Your task to perform on an android device: What's on my calendar today? Image 0: 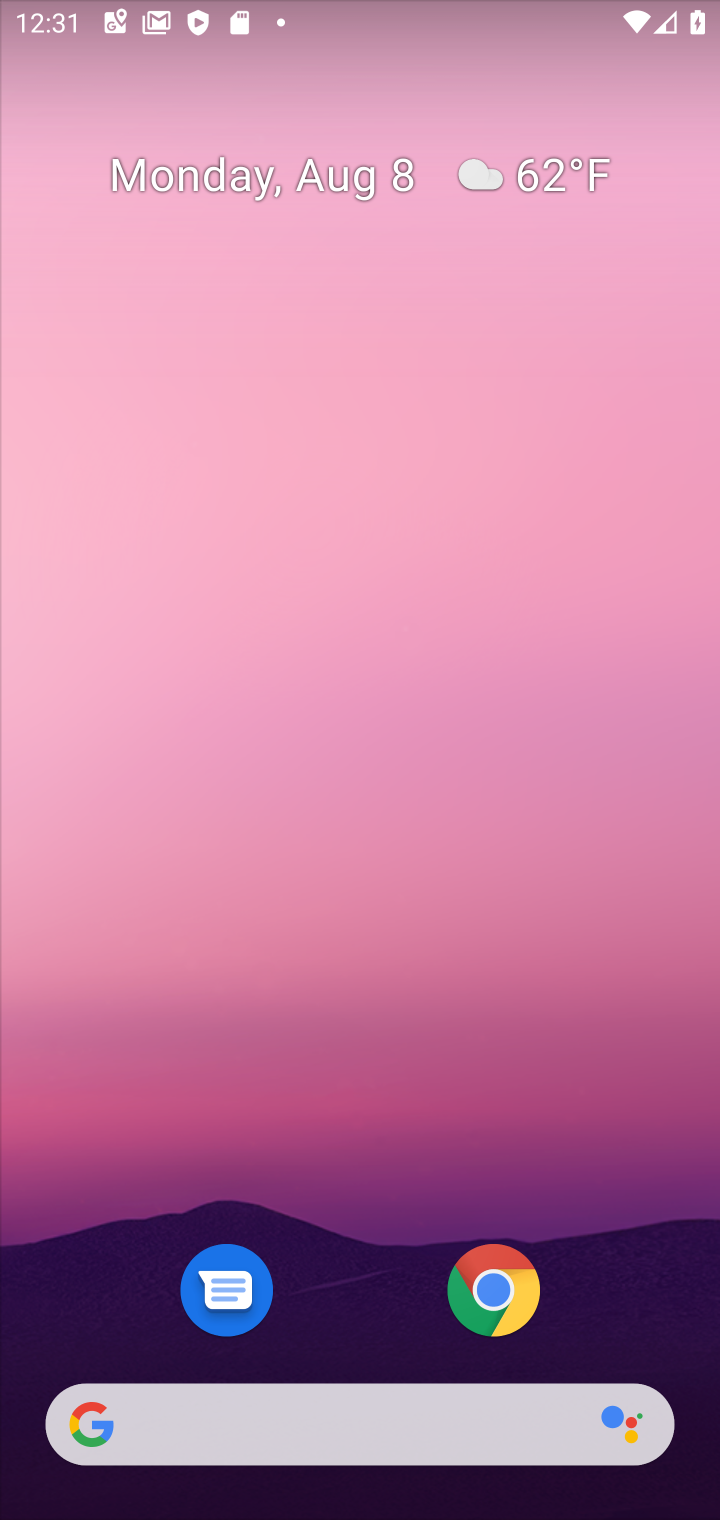
Step 0: press home button
Your task to perform on an android device: What's on my calendar today? Image 1: 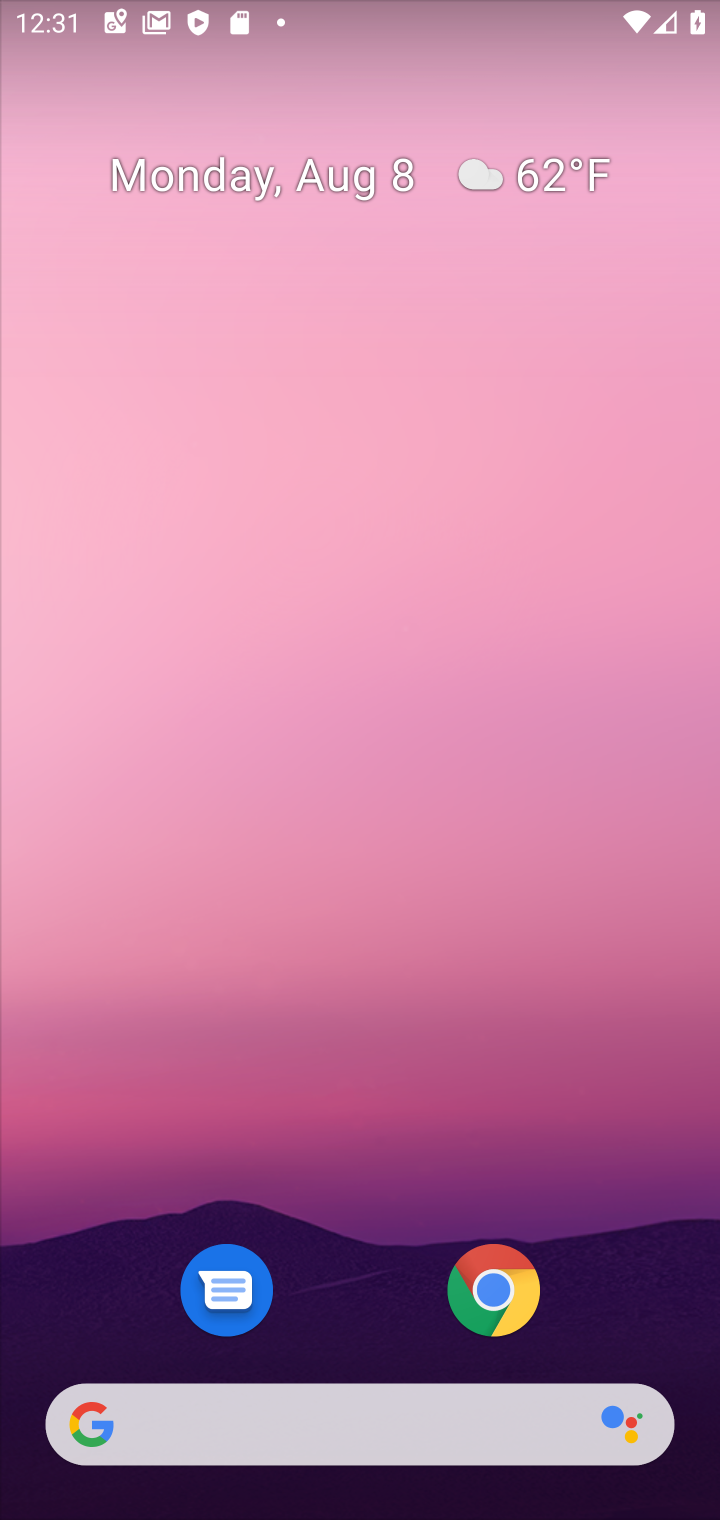
Step 1: click (350, 83)
Your task to perform on an android device: What's on my calendar today? Image 2: 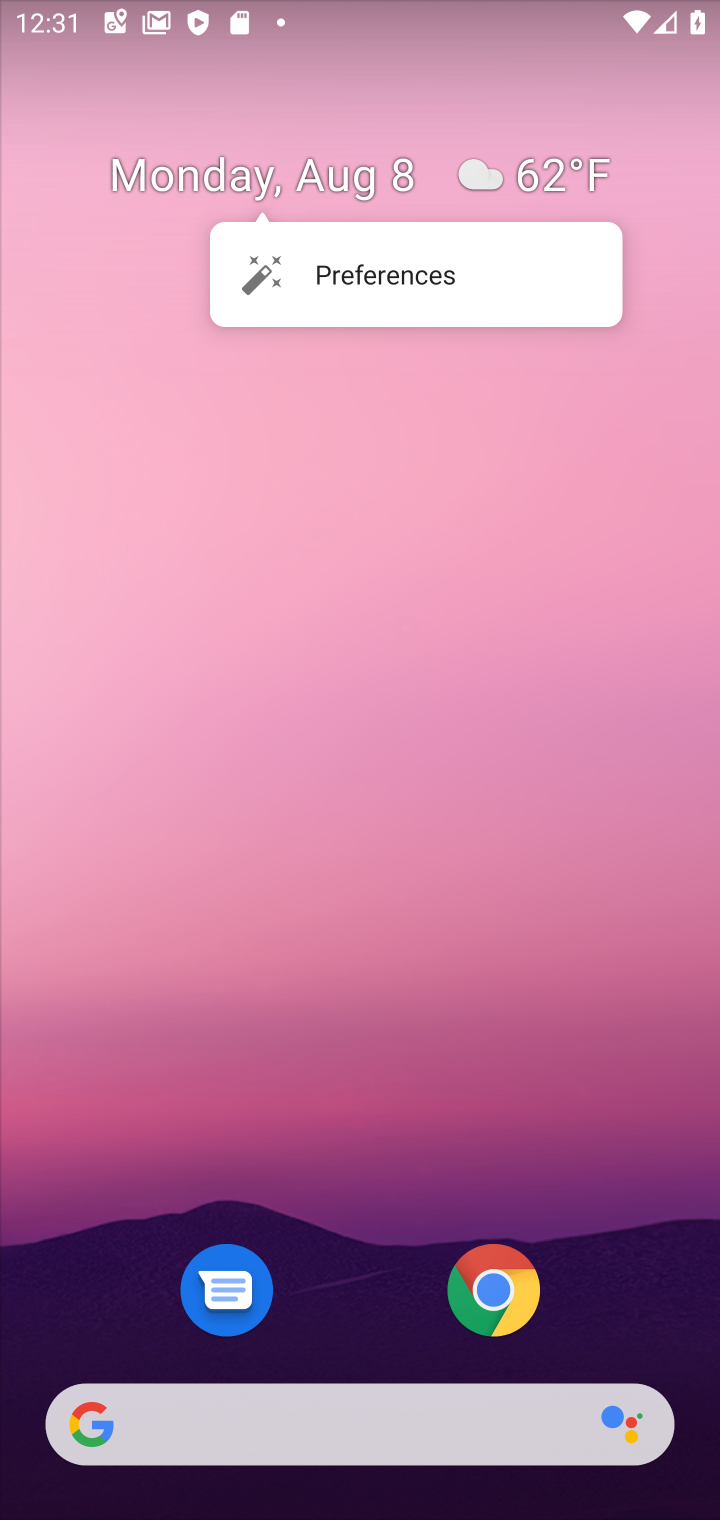
Step 2: click (310, 1262)
Your task to perform on an android device: What's on my calendar today? Image 3: 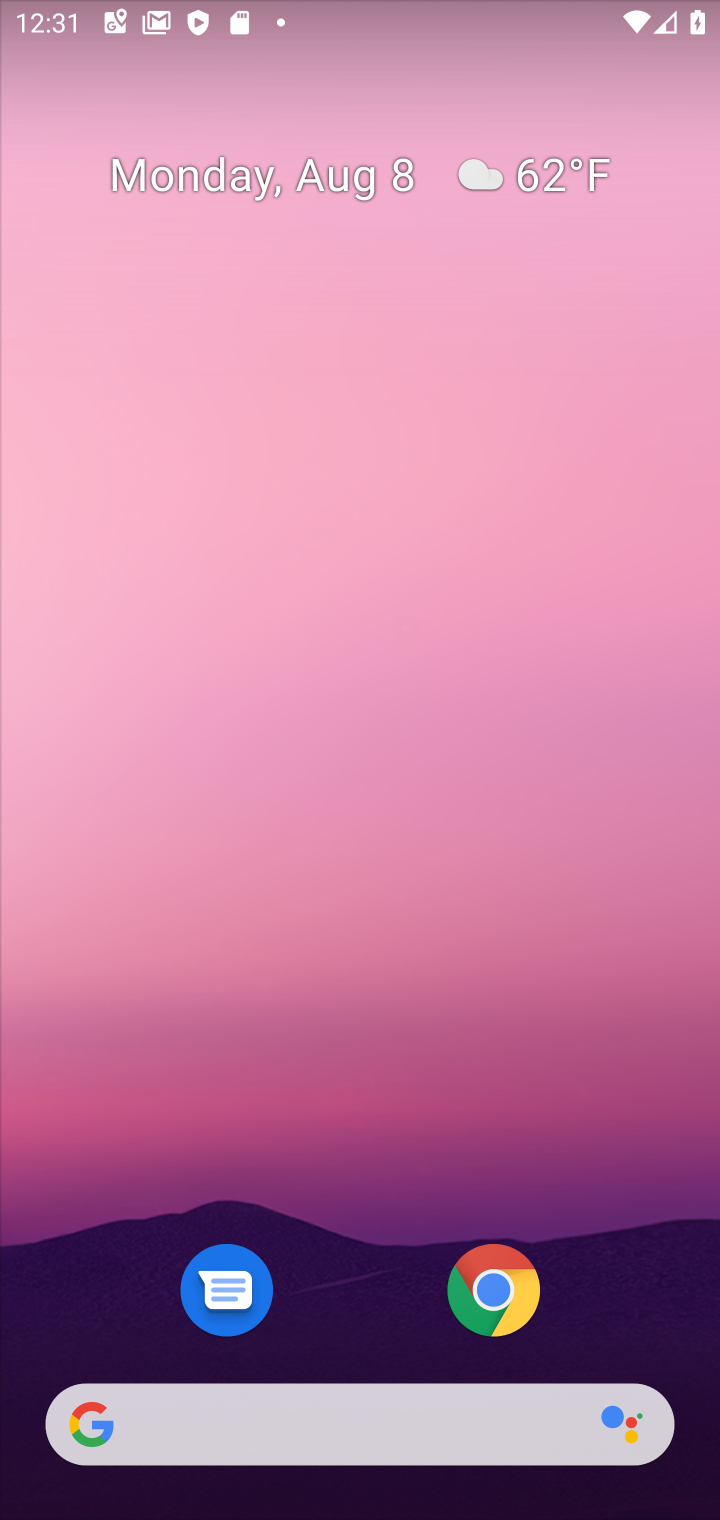
Step 3: drag from (351, 1361) to (356, 237)
Your task to perform on an android device: What's on my calendar today? Image 4: 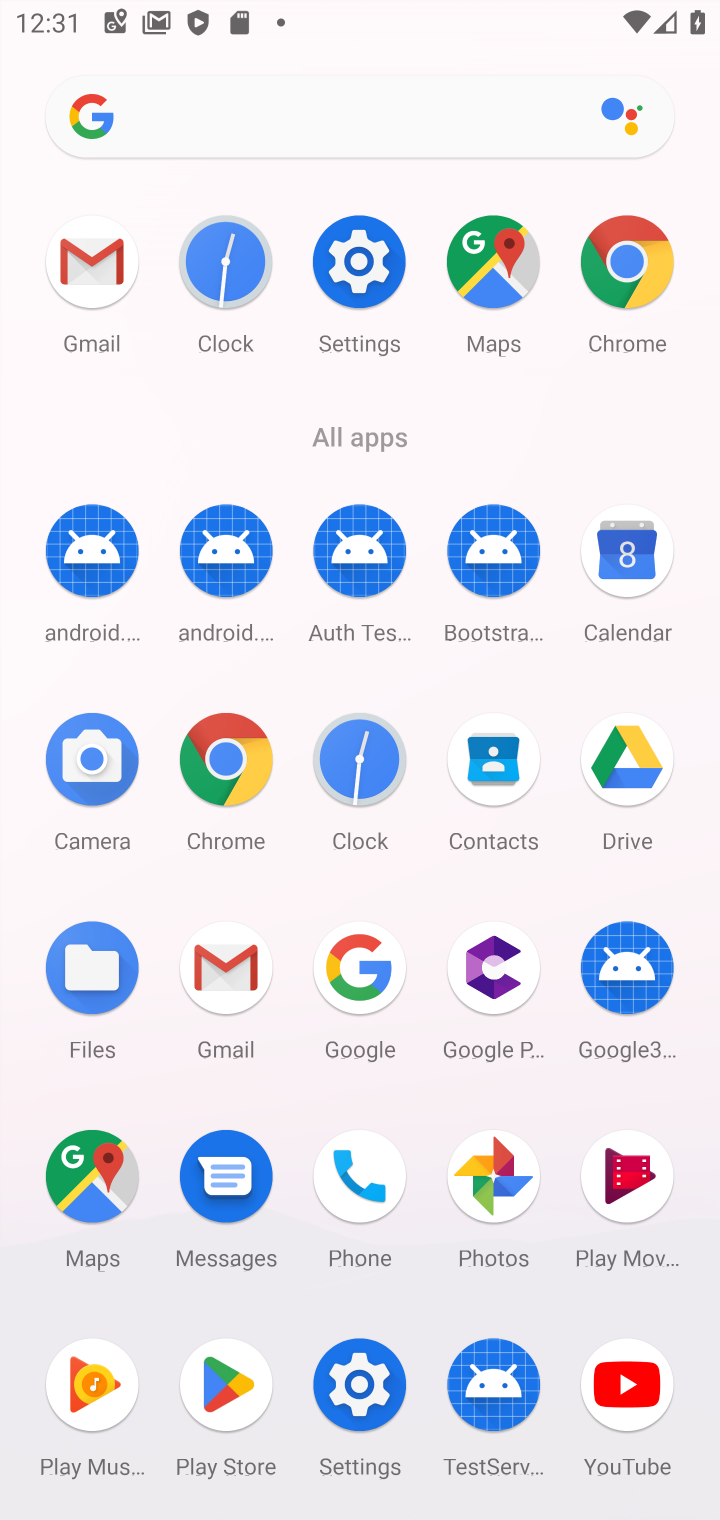
Step 4: click (648, 553)
Your task to perform on an android device: What's on my calendar today? Image 5: 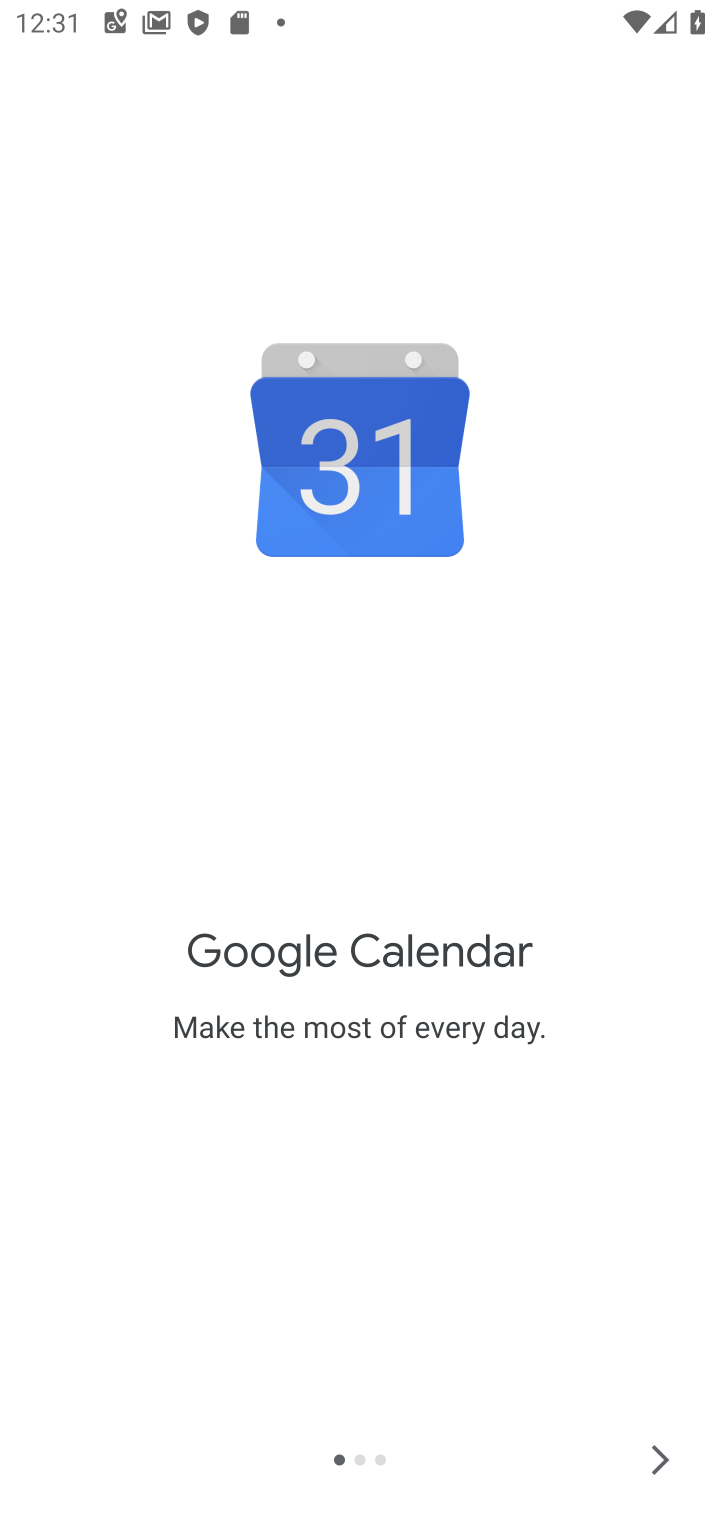
Step 5: click (668, 1452)
Your task to perform on an android device: What's on my calendar today? Image 6: 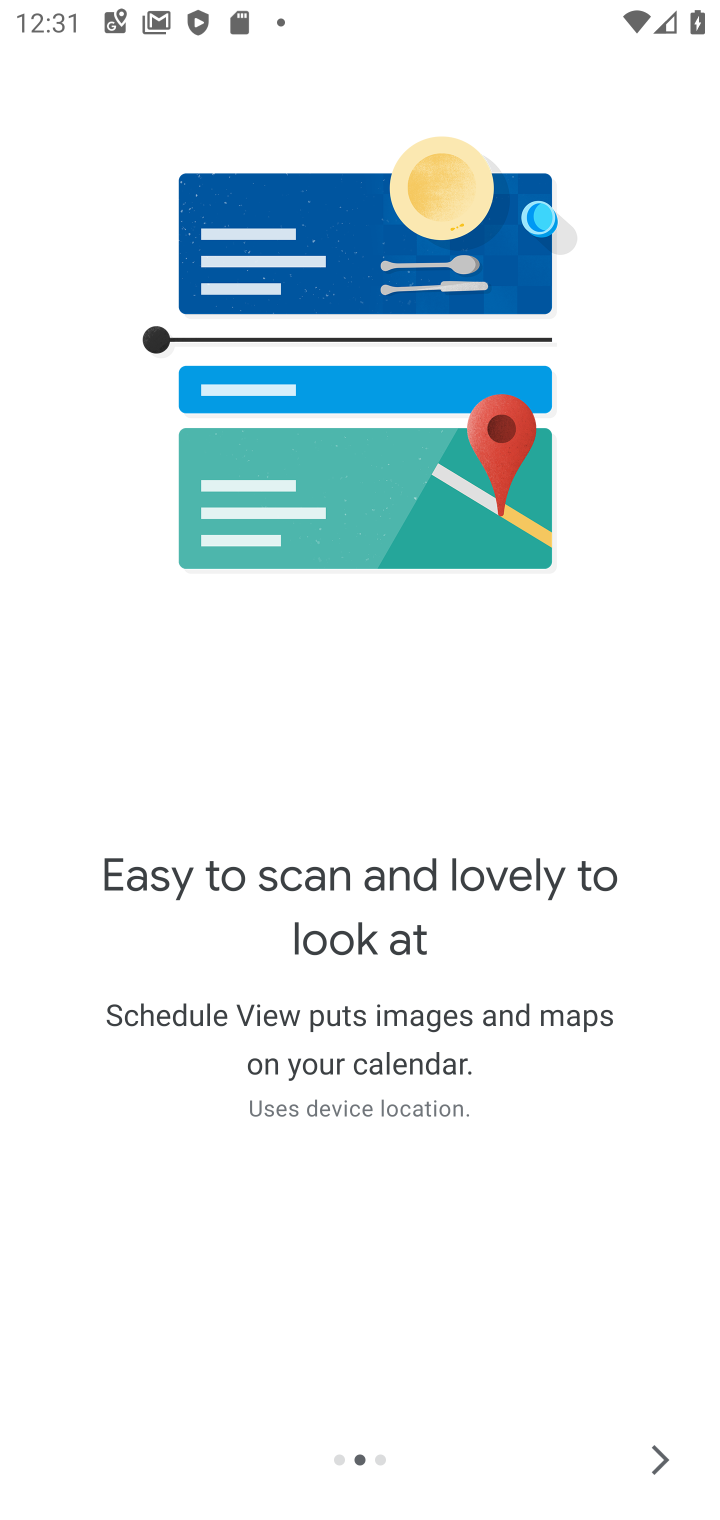
Step 6: click (668, 1452)
Your task to perform on an android device: What's on my calendar today? Image 7: 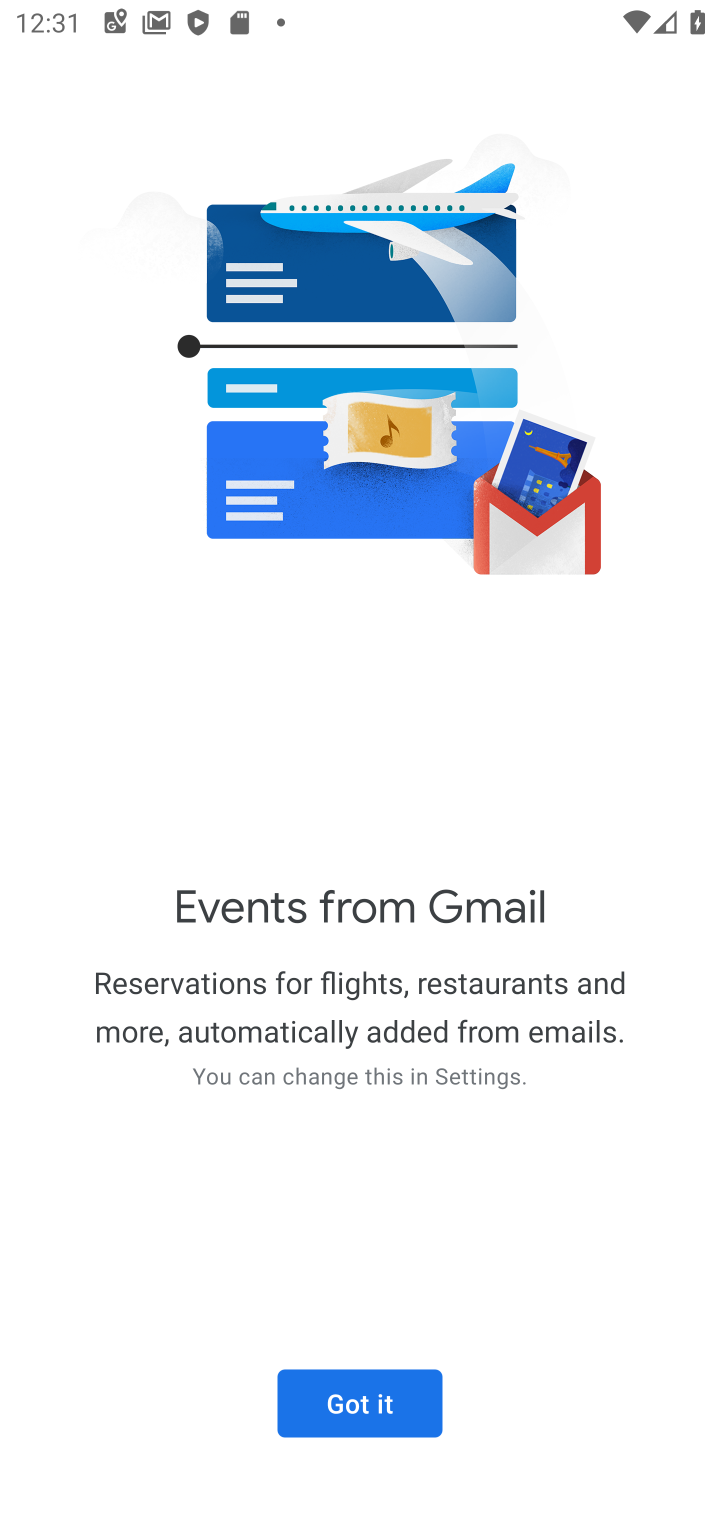
Step 7: click (372, 1410)
Your task to perform on an android device: What's on my calendar today? Image 8: 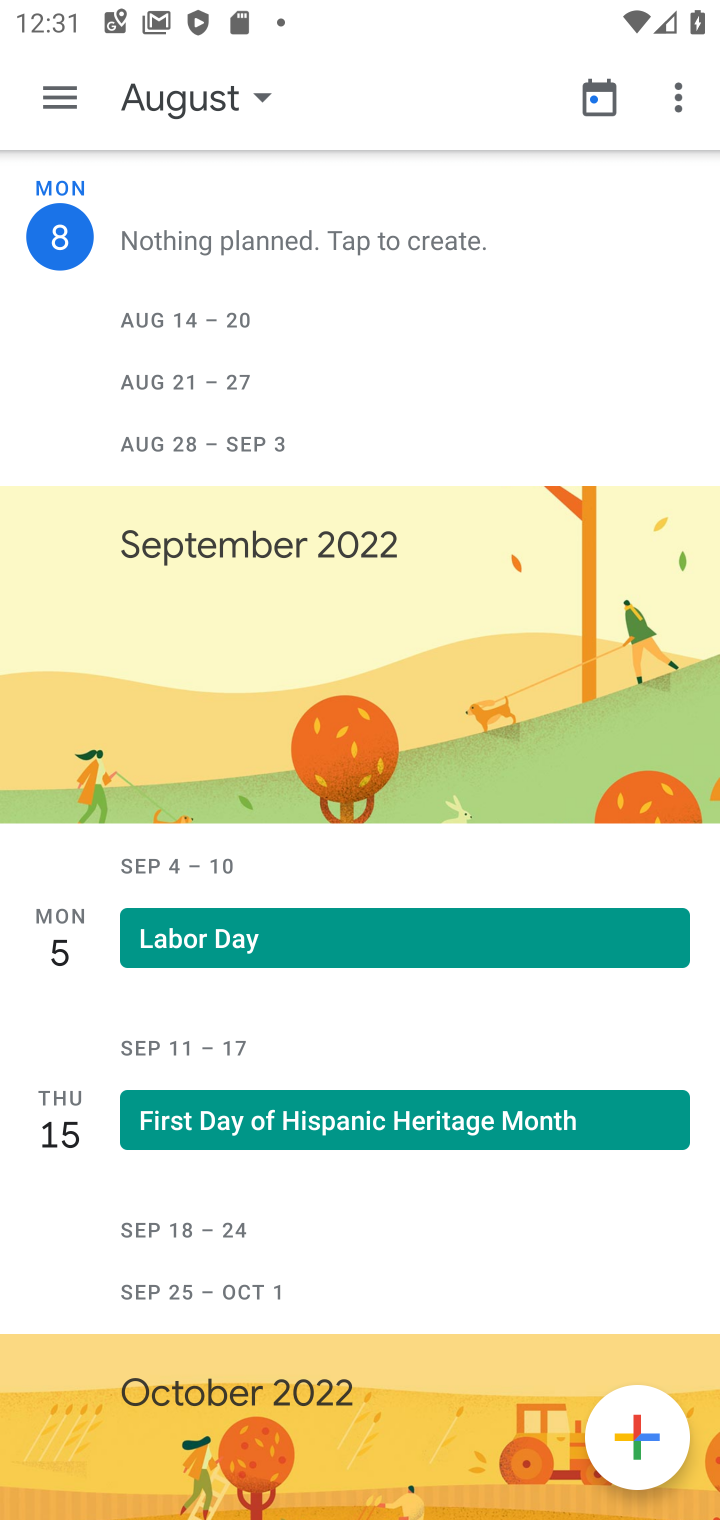
Step 8: click (218, 99)
Your task to perform on an android device: What's on my calendar today? Image 9: 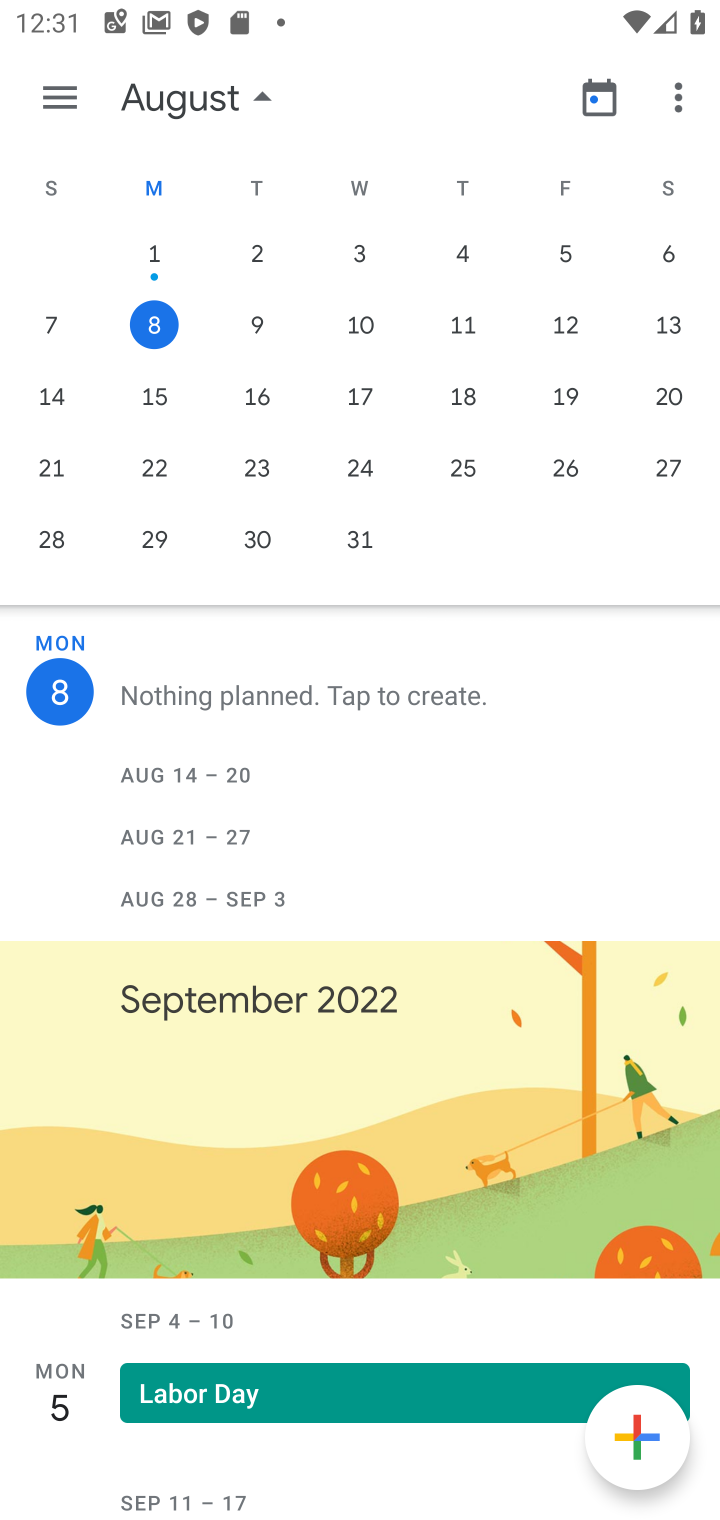
Step 9: click (153, 326)
Your task to perform on an android device: What's on my calendar today? Image 10: 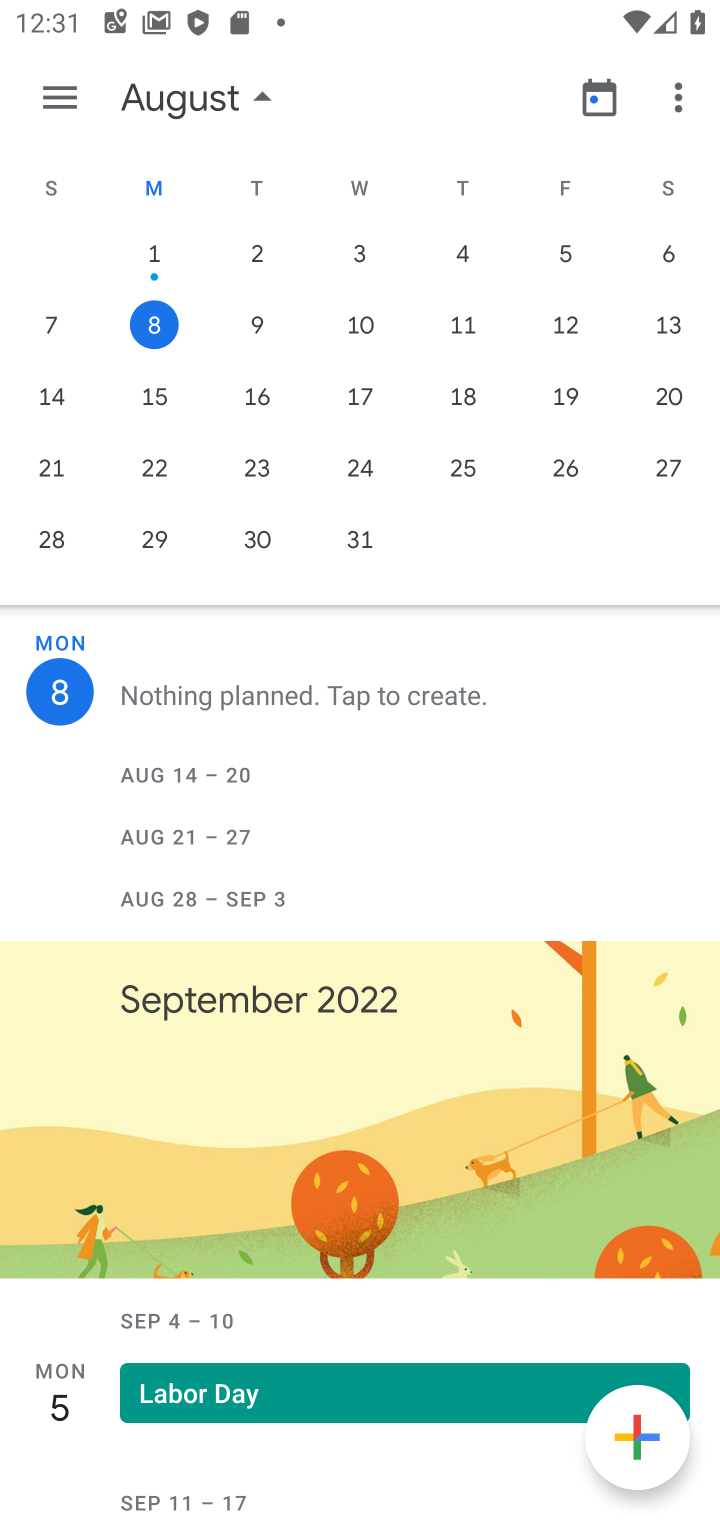
Step 10: task complete